Your task to perform on an android device: Open my contact list Image 0: 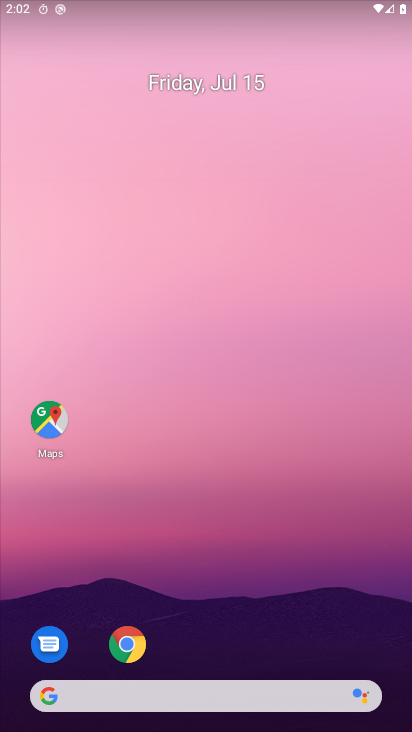
Step 0: drag from (38, 663) to (281, 244)
Your task to perform on an android device: Open my contact list Image 1: 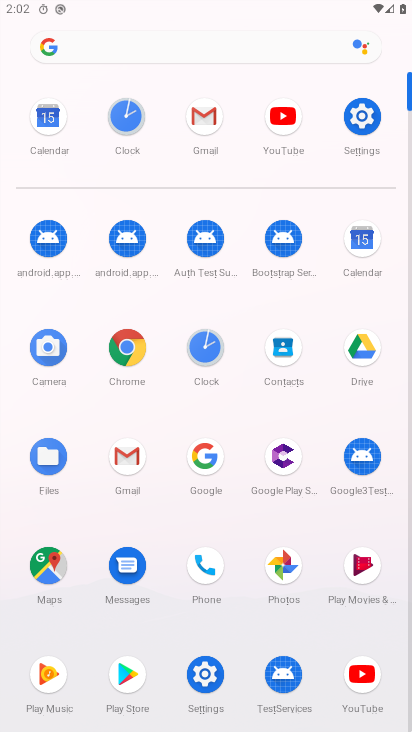
Step 1: click (269, 351)
Your task to perform on an android device: Open my contact list Image 2: 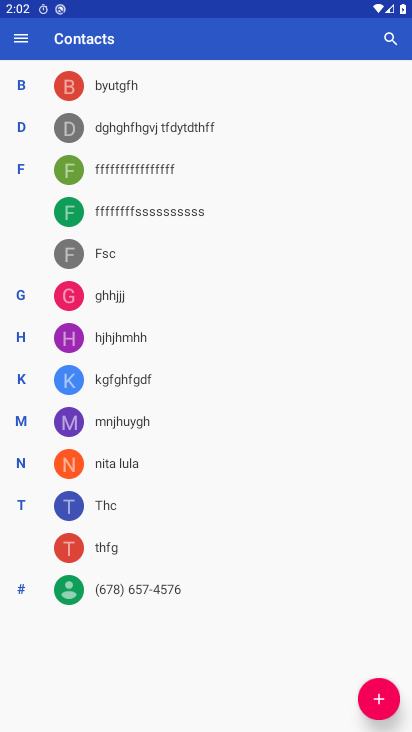
Step 2: task complete